Your task to perform on an android device: Is it going to rain this weekend? Image 0: 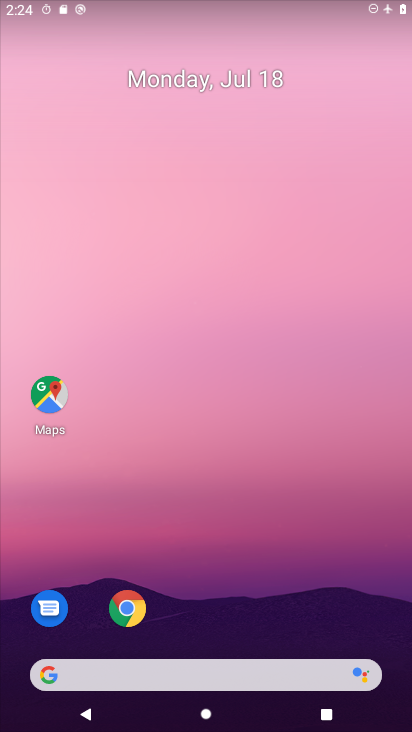
Step 0: drag from (226, 650) to (218, 84)
Your task to perform on an android device: Is it going to rain this weekend? Image 1: 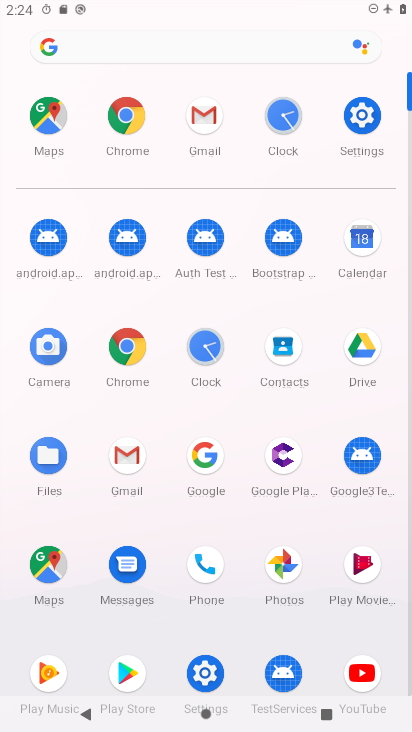
Step 1: click (209, 459)
Your task to perform on an android device: Is it going to rain this weekend? Image 2: 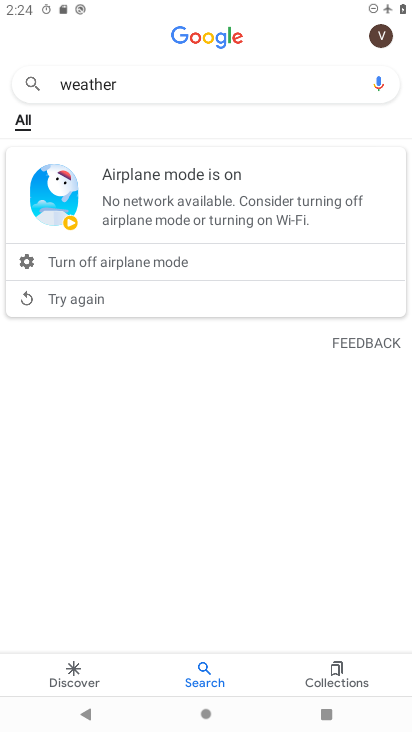
Step 2: task complete